Your task to perform on an android device: find photos in the google photos app Image 0: 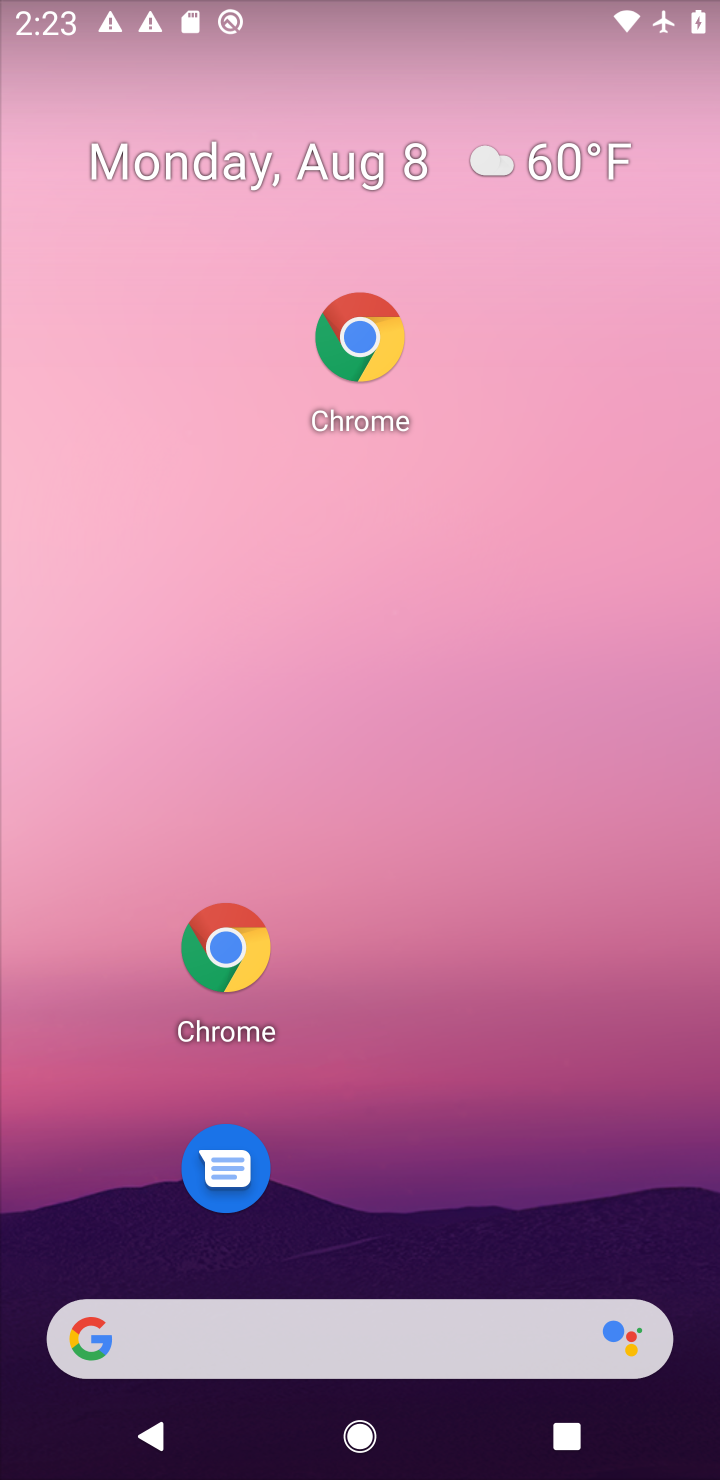
Step 0: drag from (317, 1286) to (441, 168)
Your task to perform on an android device: find photos in the google photos app Image 1: 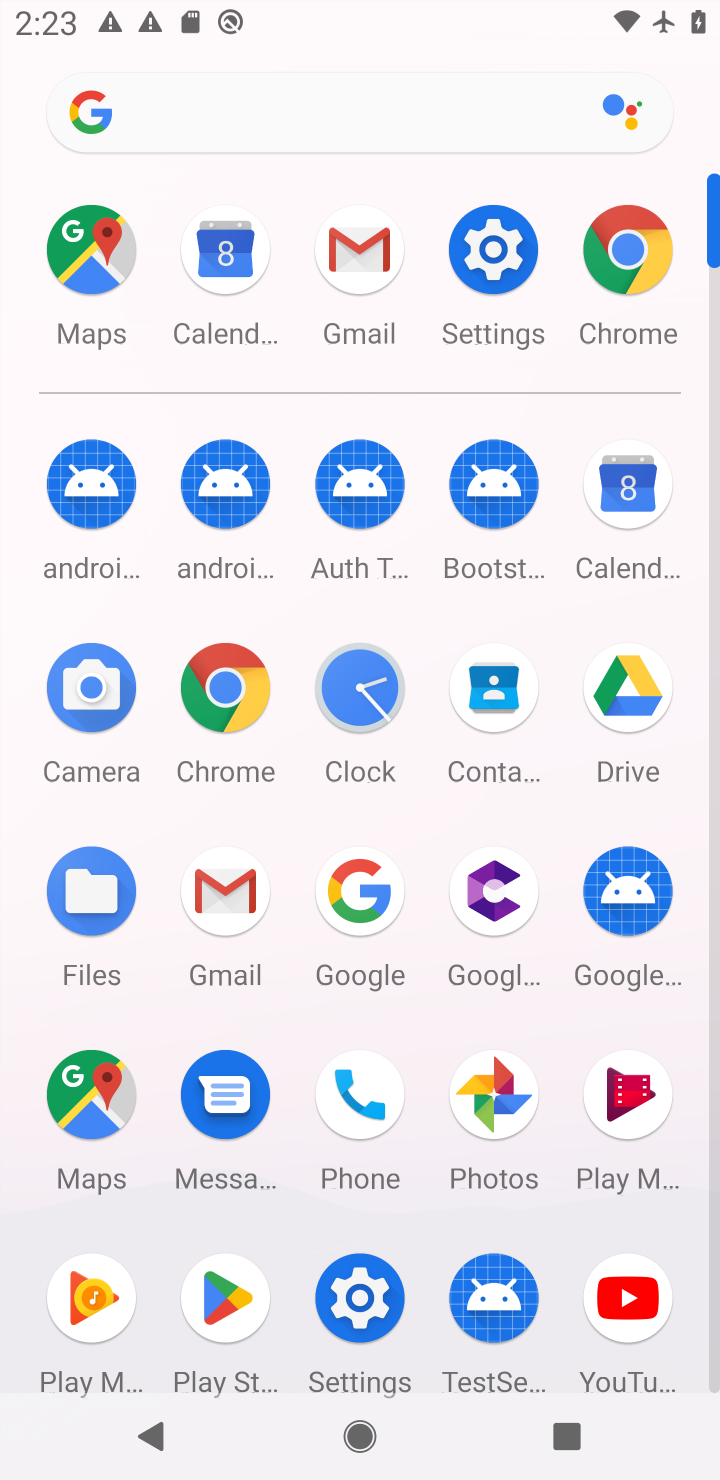
Step 1: drag from (441, 168) to (419, 406)
Your task to perform on an android device: find photos in the google photos app Image 2: 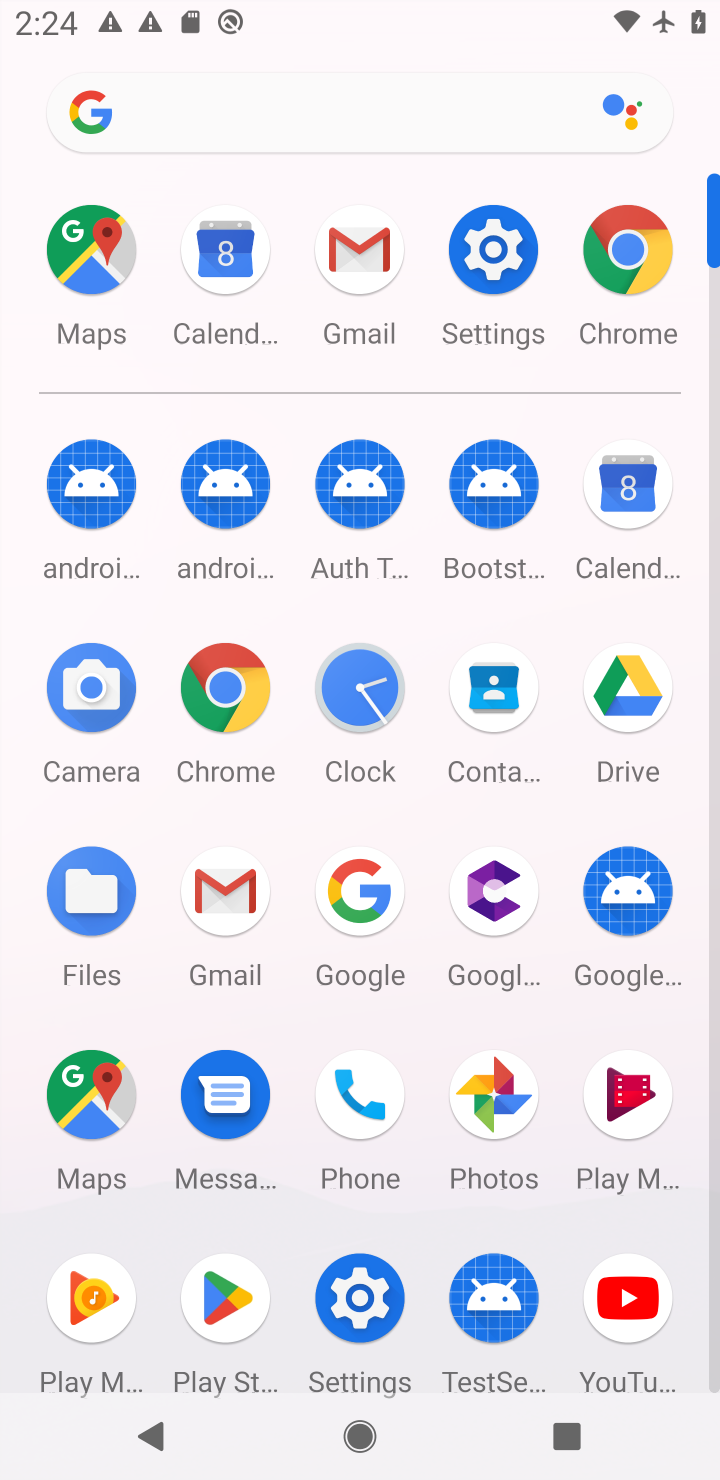
Step 2: click (472, 1098)
Your task to perform on an android device: find photos in the google photos app Image 3: 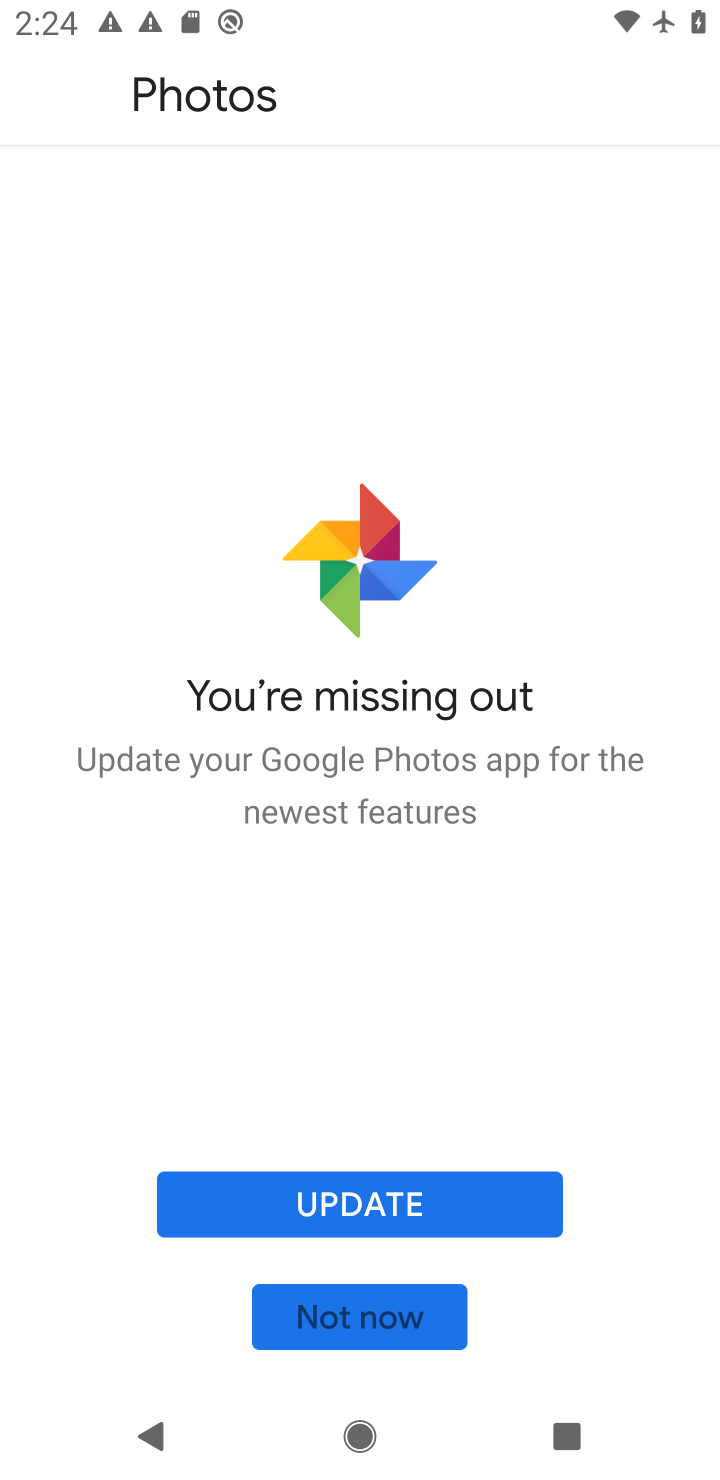
Step 3: press home button
Your task to perform on an android device: find photos in the google photos app Image 4: 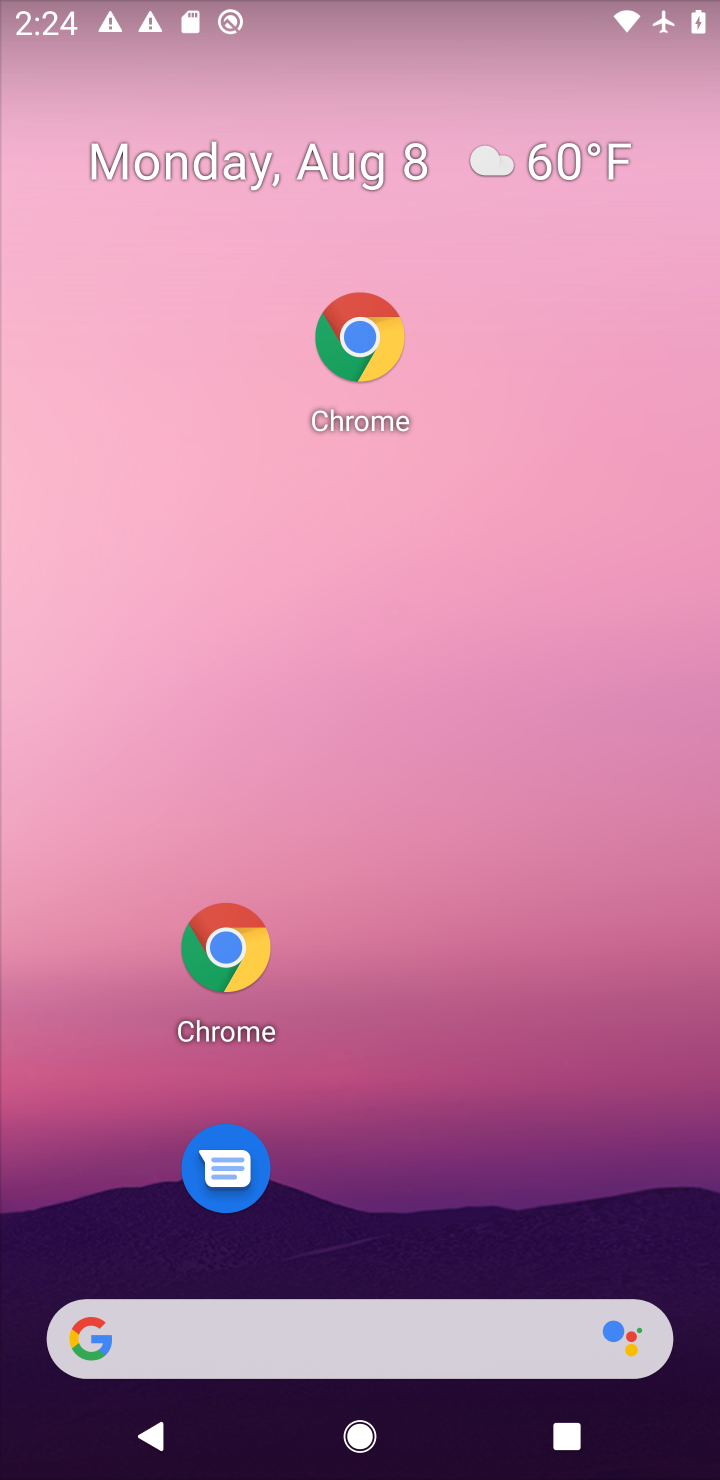
Step 4: press home button
Your task to perform on an android device: find photos in the google photos app Image 5: 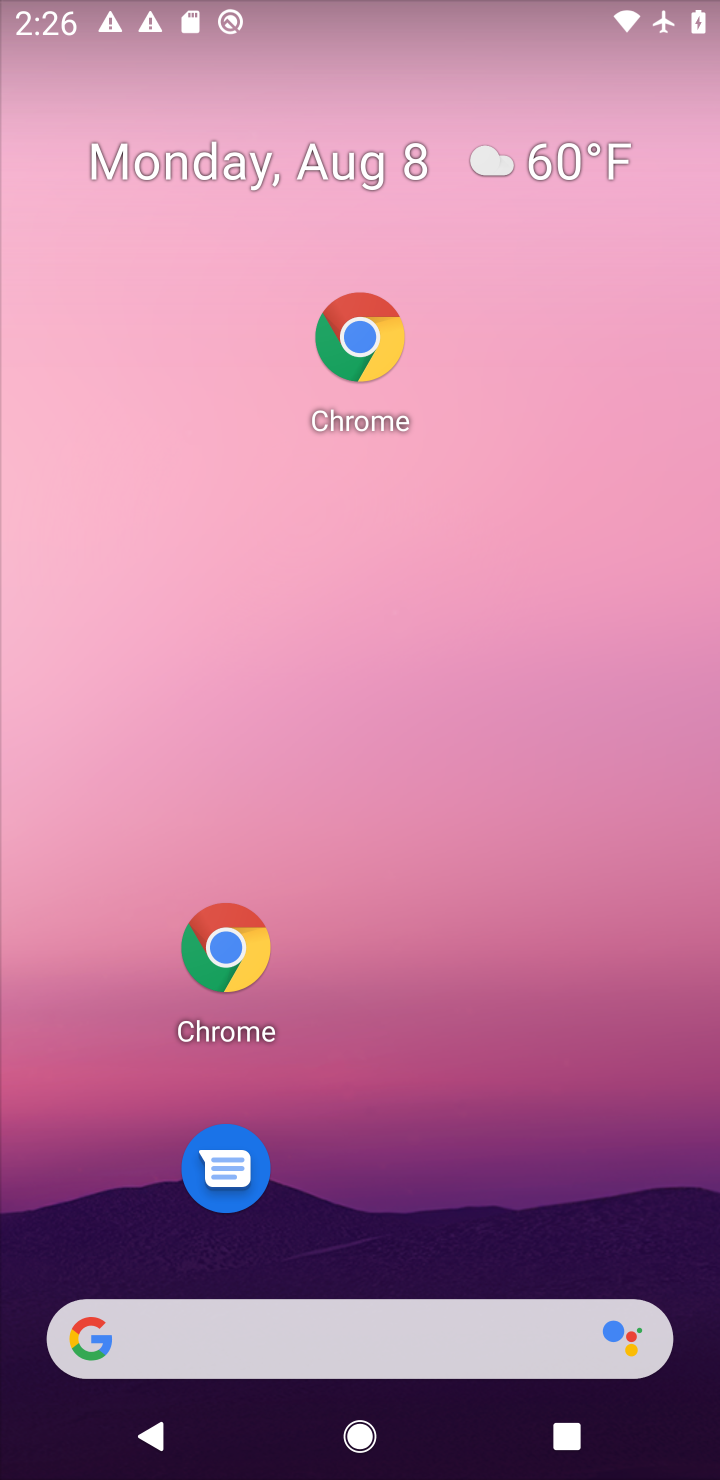
Step 5: press back button
Your task to perform on an android device: find photos in the google photos app Image 6: 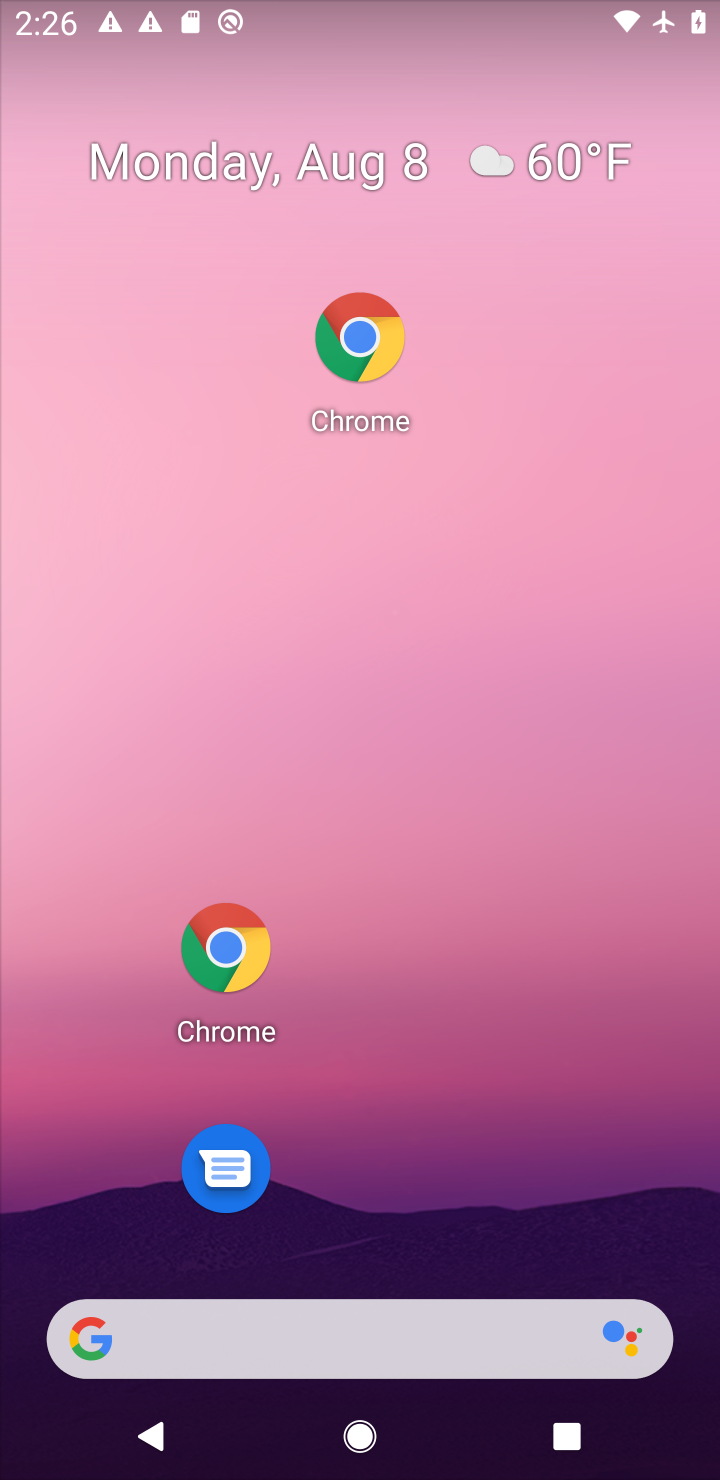
Step 6: type ""
Your task to perform on an android device: find photos in the google photos app Image 7: 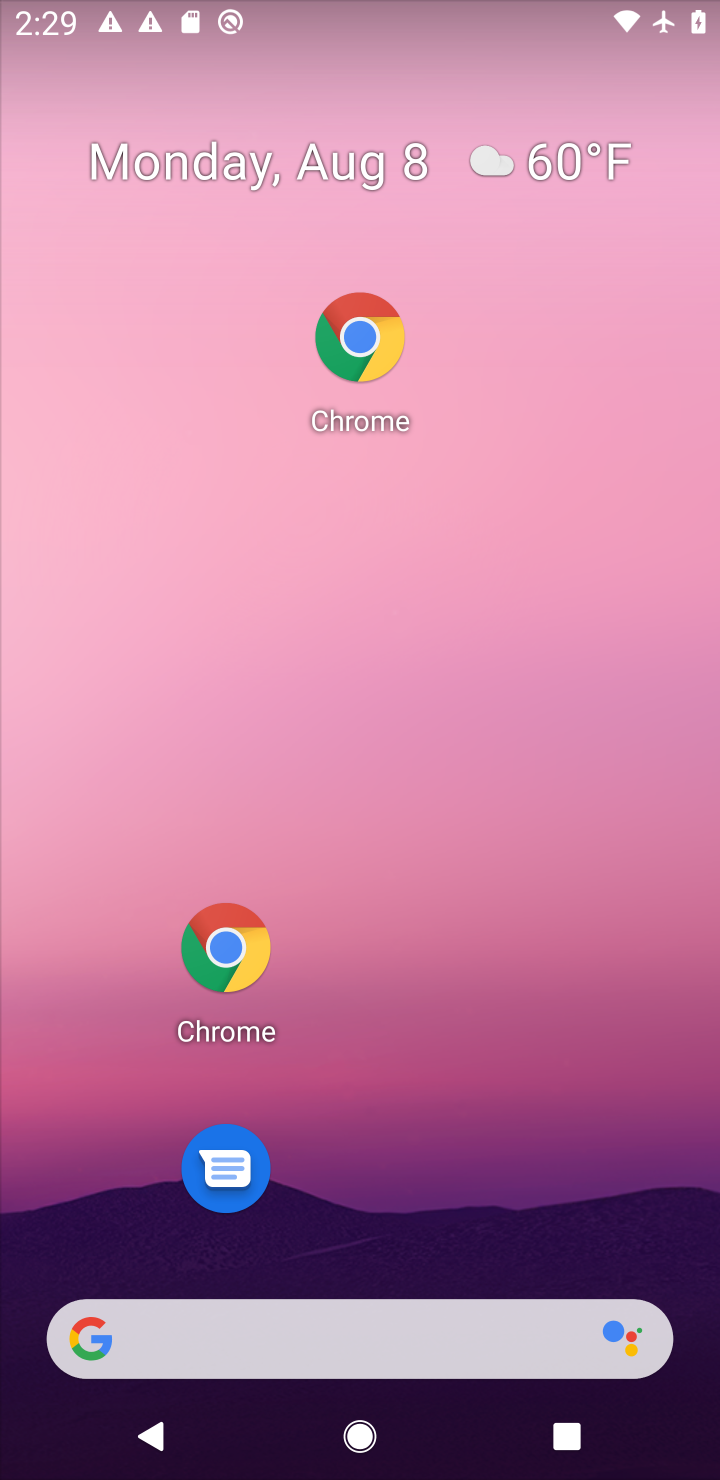
Step 7: click (355, 407)
Your task to perform on an android device: find photos in the google photos app Image 8: 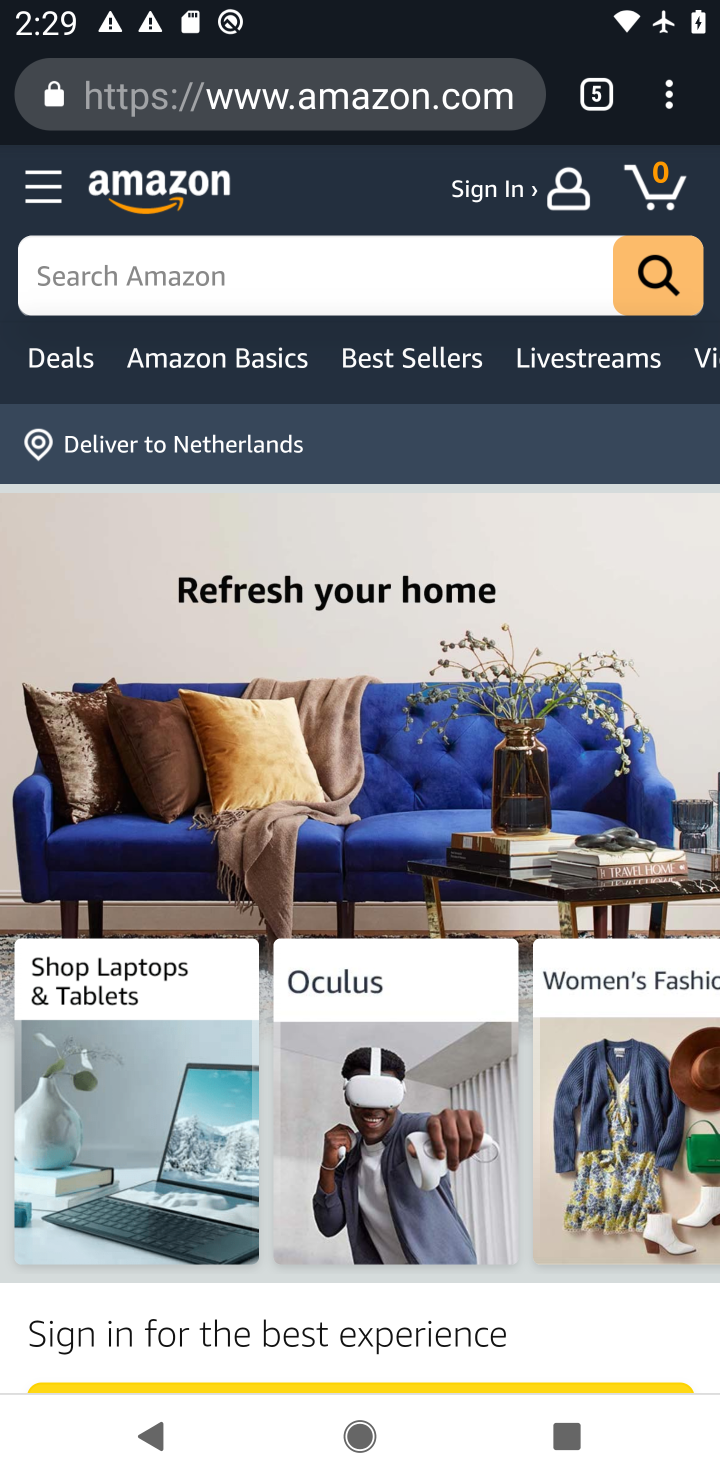
Step 8: task complete